Your task to perform on an android device: Go to Amazon Image 0: 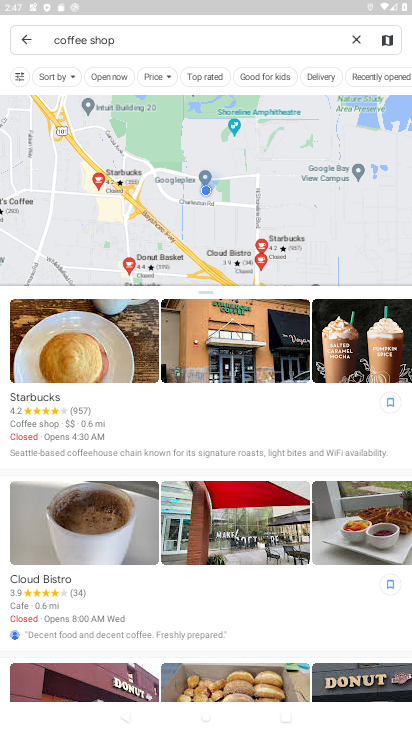
Step 0: press home button
Your task to perform on an android device: Go to Amazon Image 1: 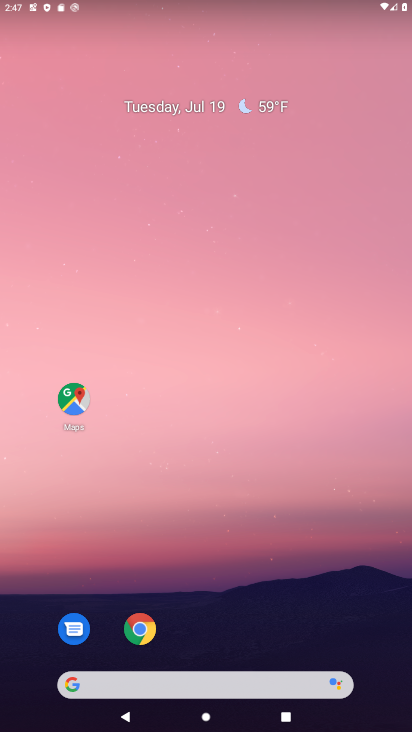
Step 1: click (144, 629)
Your task to perform on an android device: Go to Amazon Image 2: 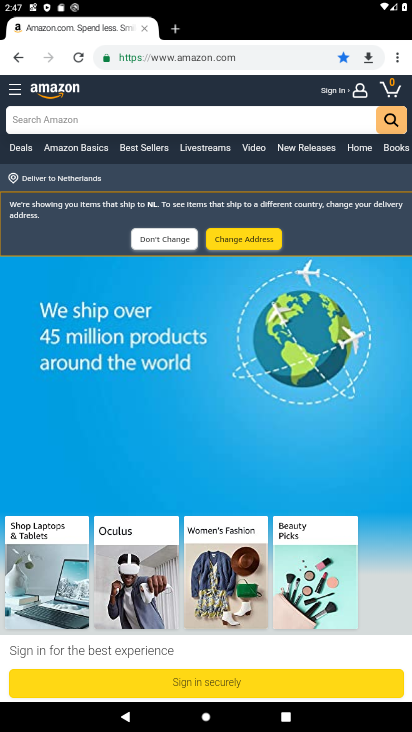
Step 2: task complete